Your task to perform on an android device: find photos in the google photos app Image 0: 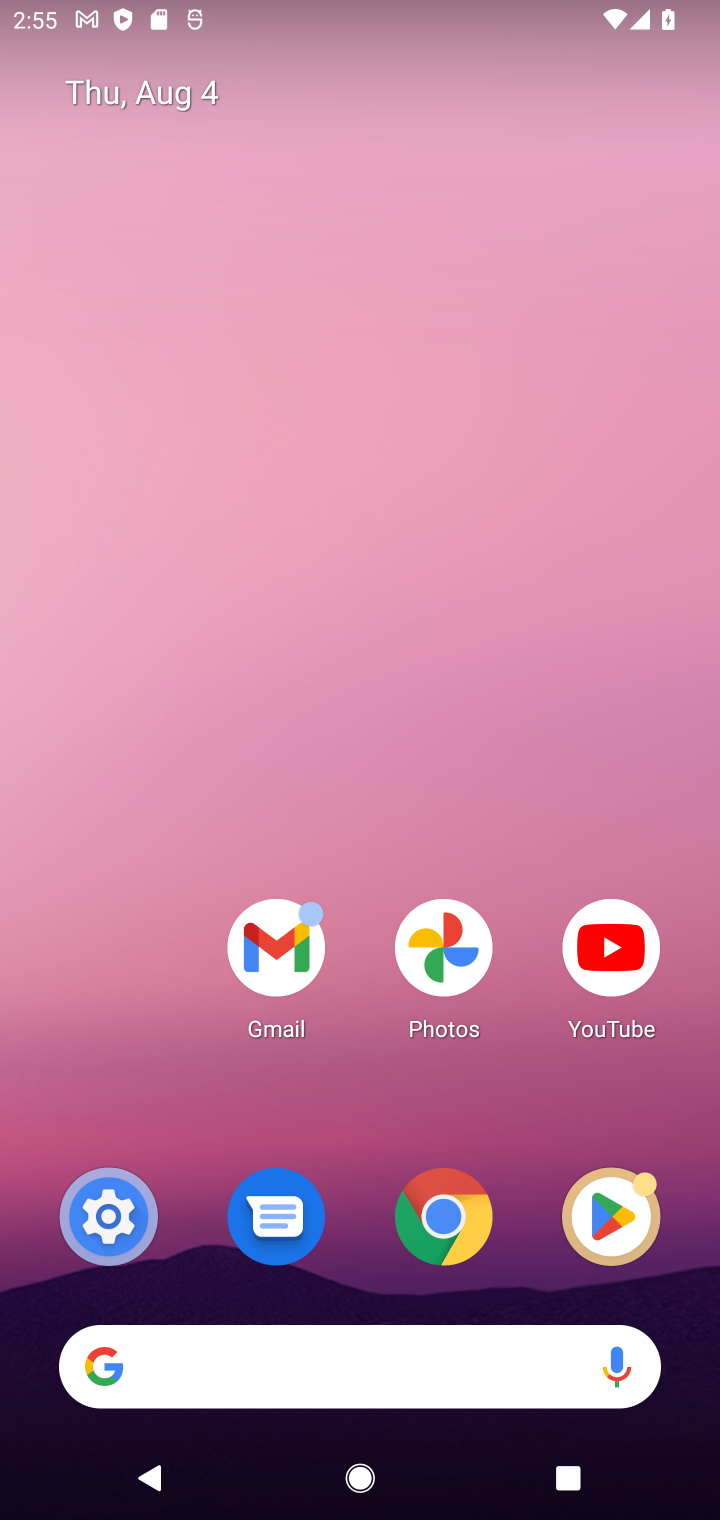
Step 0: drag from (277, 944) to (622, 166)
Your task to perform on an android device: find photos in the google photos app Image 1: 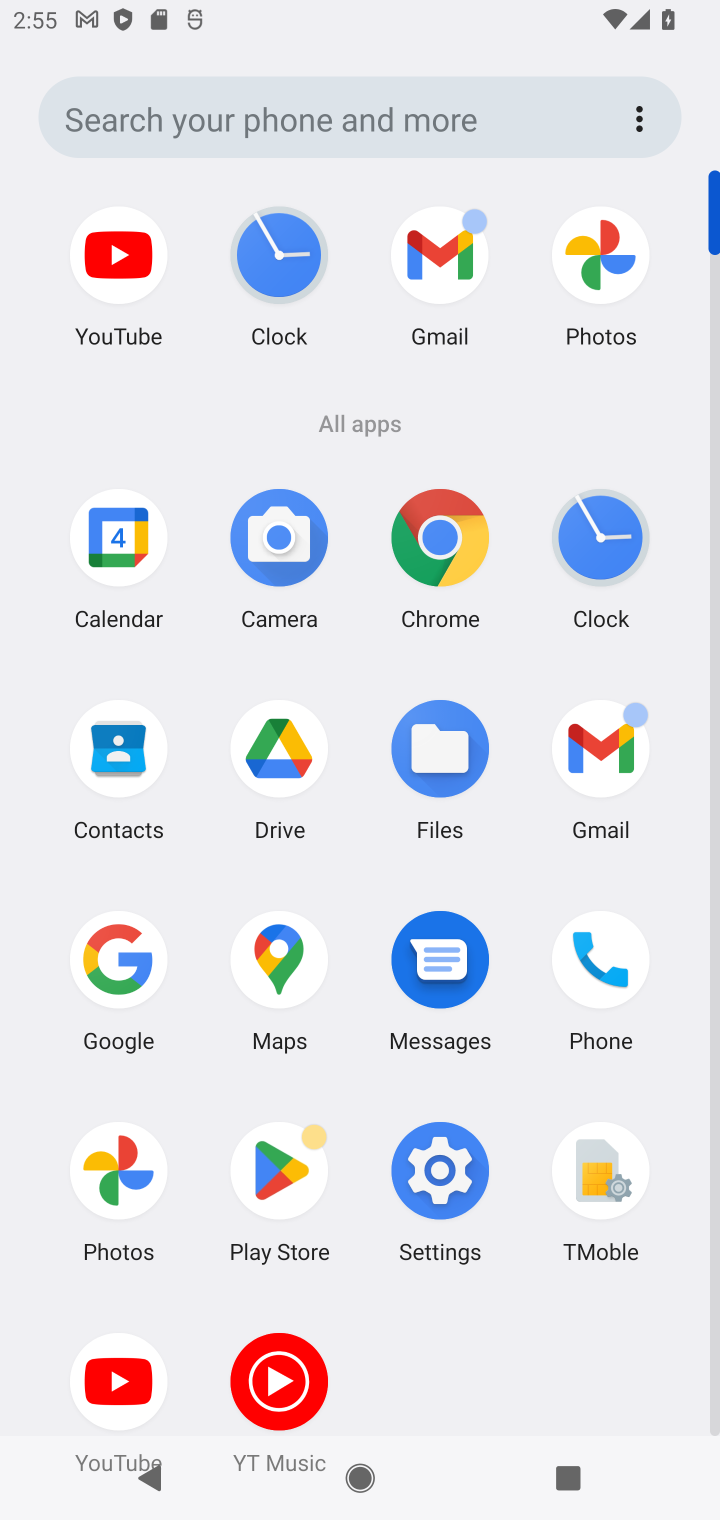
Step 1: click (611, 259)
Your task to perform on an android device: find photos in the google photos app Image 2: 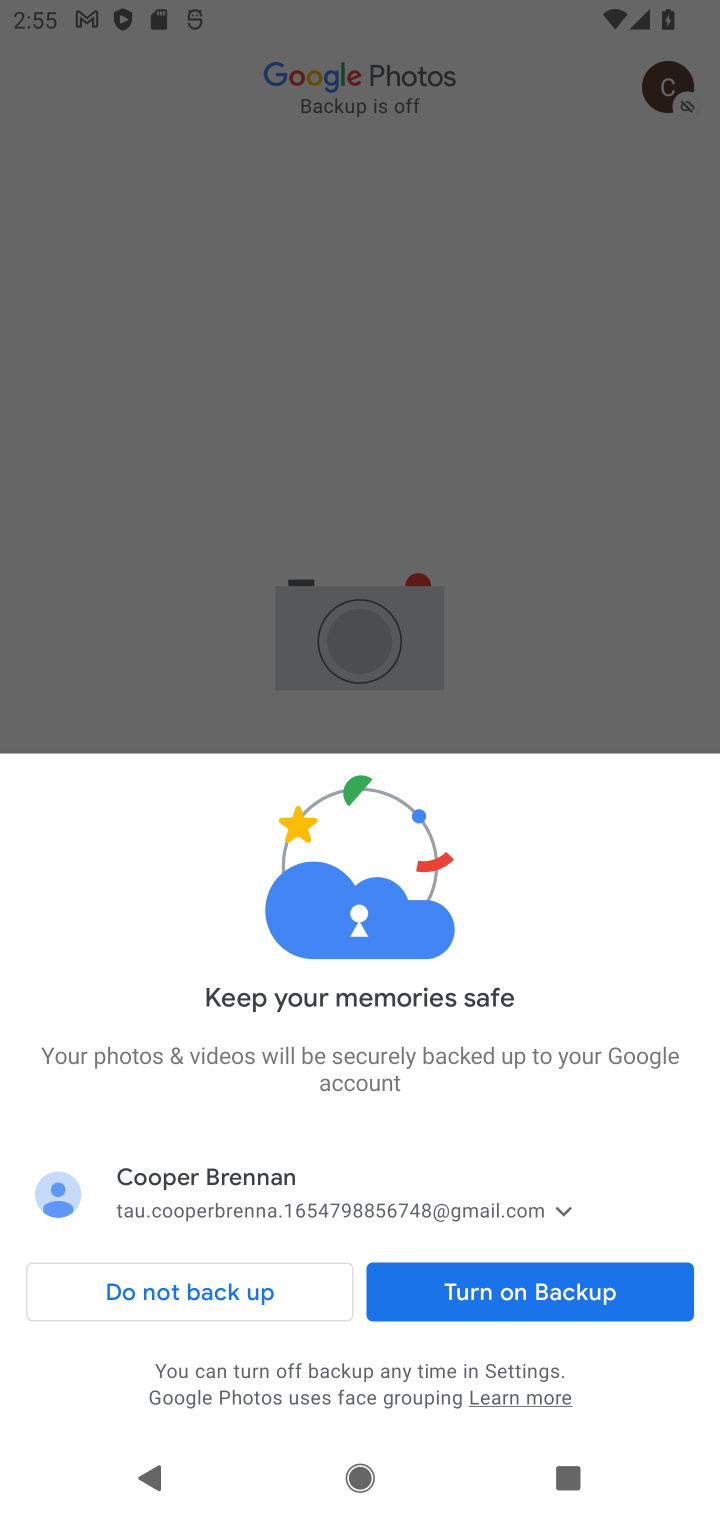
Step 2: click (530, 1292)
Your task to perform on an android device: find photos in the google photos app Image 3: 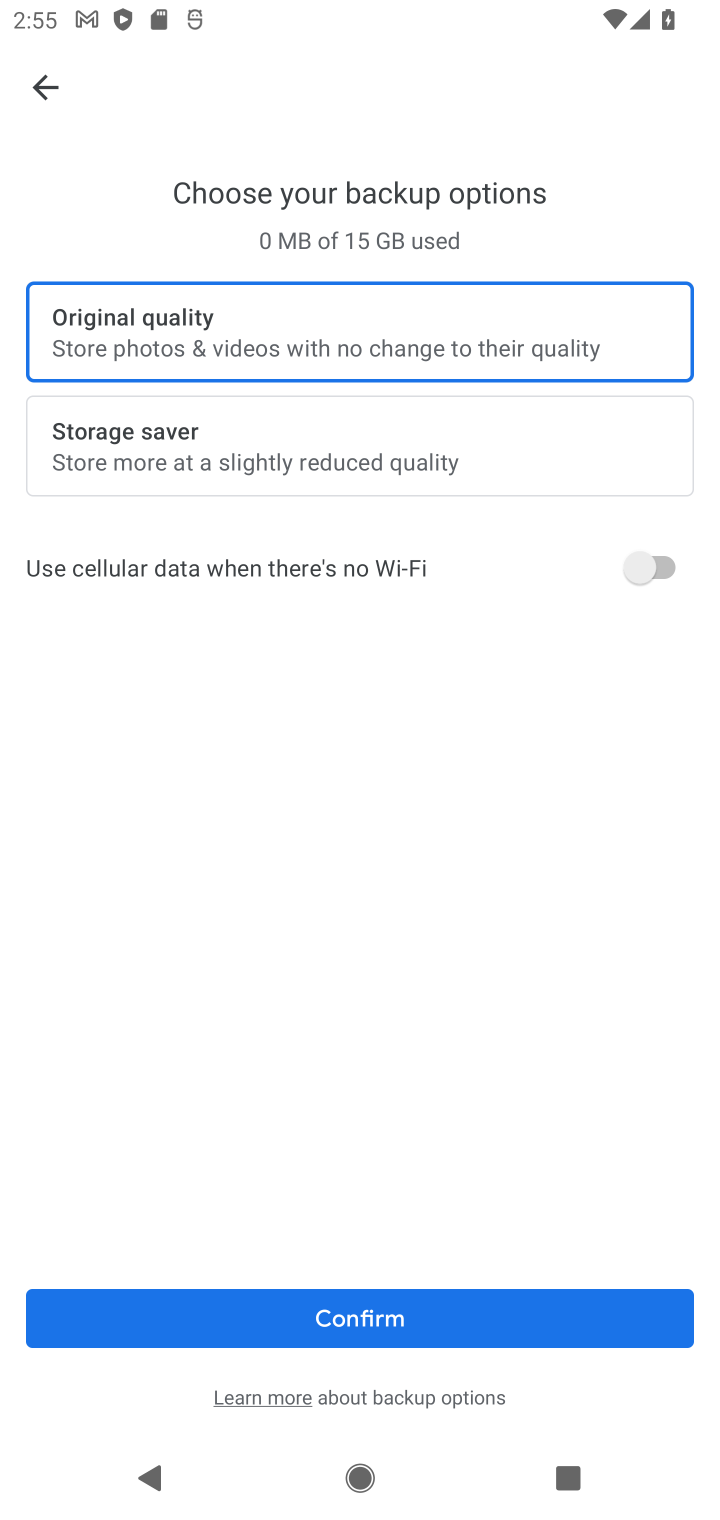
Step 3: click (406, 1325)
Your task to perform on an android device: find photos in the google photos app Image 4: 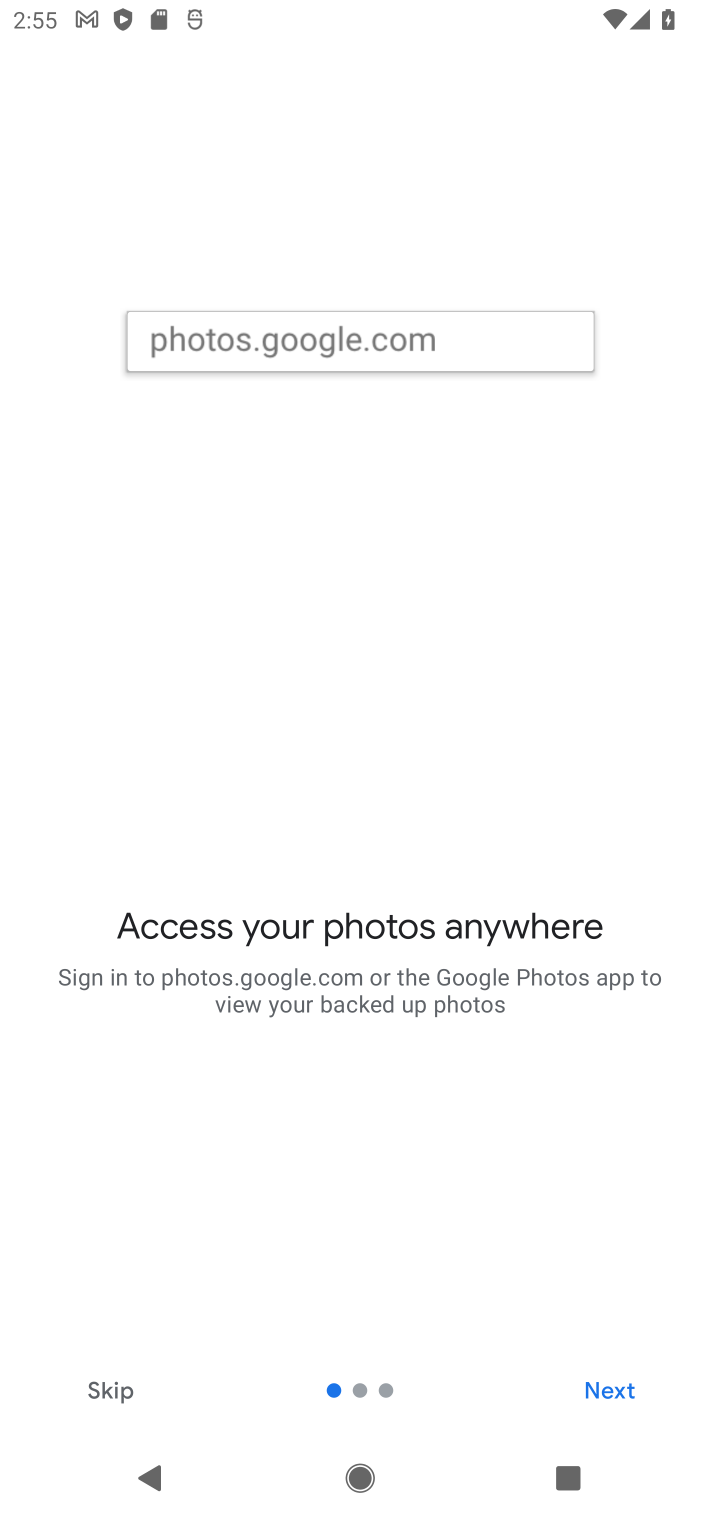
Step 4: click (117, 1384)
Your task to perform on an android device: find photos in the google photos app Image 5: 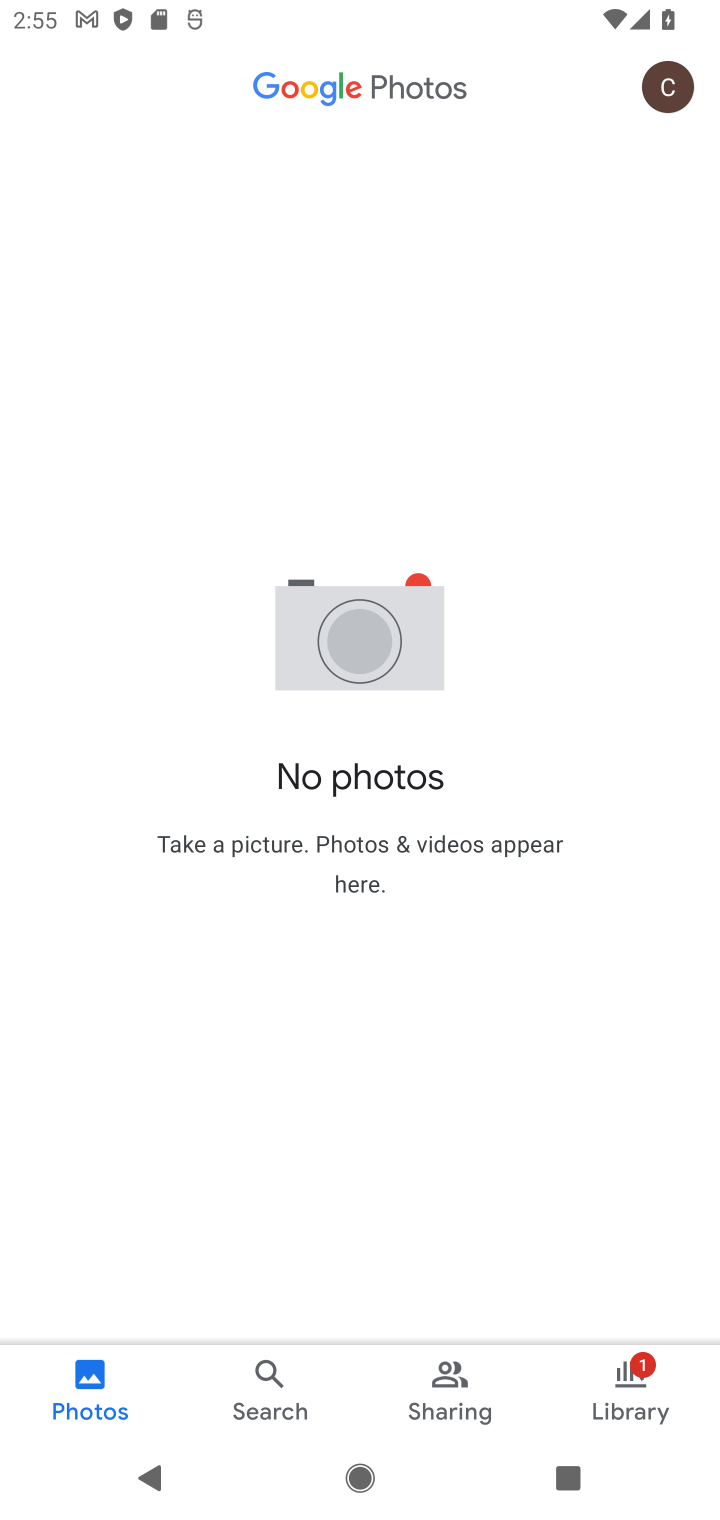
Step 5: task complete